Your task to perform on an android device: Find coffee shops on Maps Image 0: 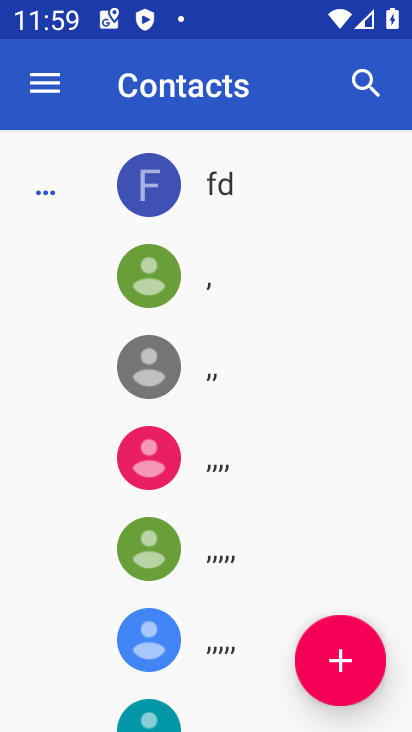
Step 0: press home button
Your task to perform on an android device: Find coffee shops on Maps Image 1: 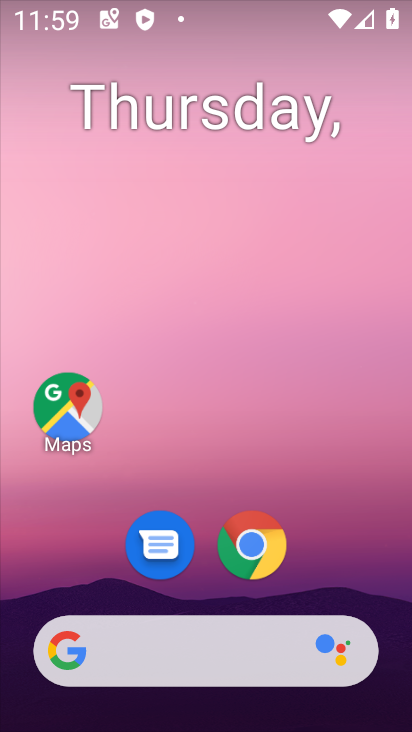
Step 1: click (69, 402)
Your task to perform on an android device: Find coffee shops on Maps Image 2: 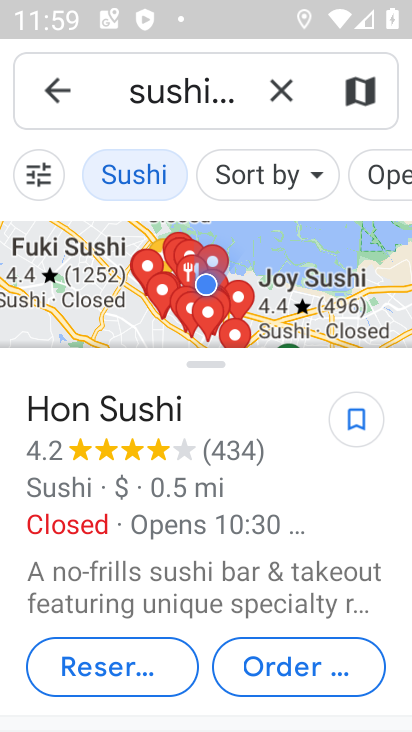
Step 2: click (282, 85)
Your task to perform on an android device: Find coffee shops on Maps Image 3: 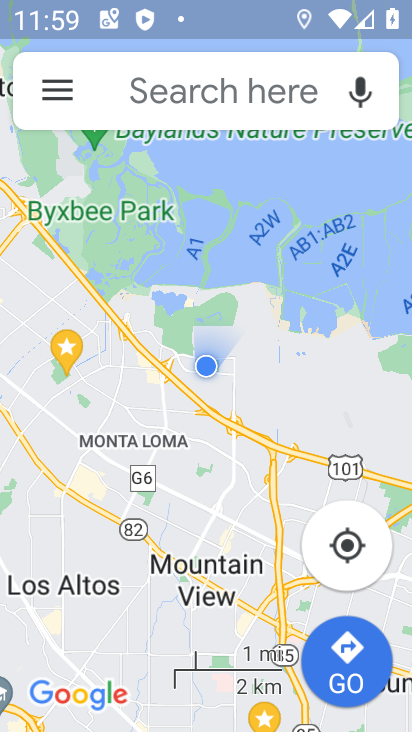
Step 3: click (156, 79)
Your task to perform on an android device: Find coffee shops on Maps Image 4: 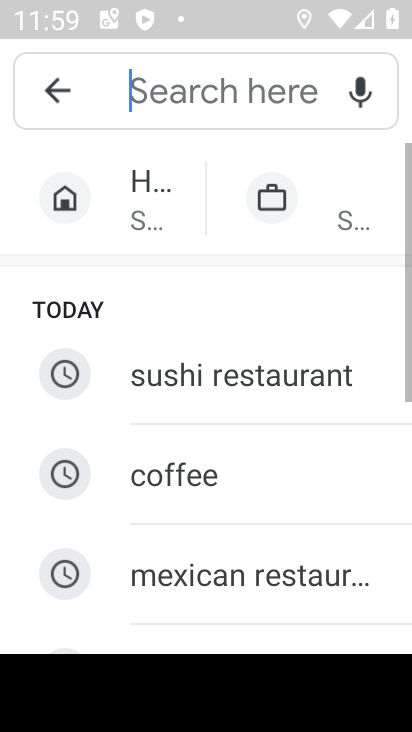
Step 4: click (184, 471)
Your task to perform on an android device: Find coffee shops on Maps Image 5: 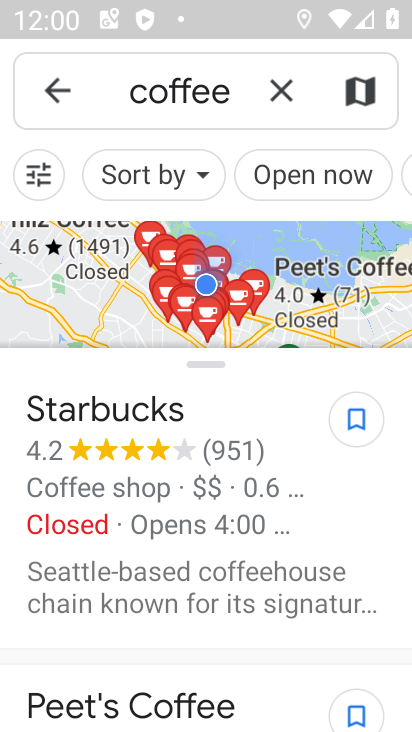
Step 5: task complete